Your task to perform on an android device: turn pop-ups on in chrome Image 0: 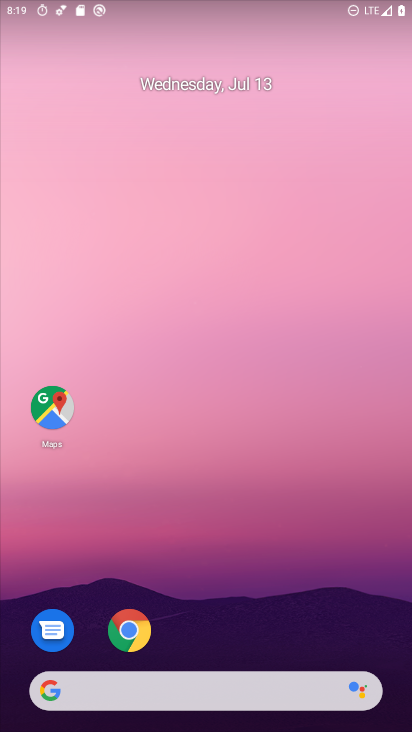
Step 0: drag from (386, 668) to (288, 68)
Your task to perform on an android device: turn pop-ups on in chrome Image 1: 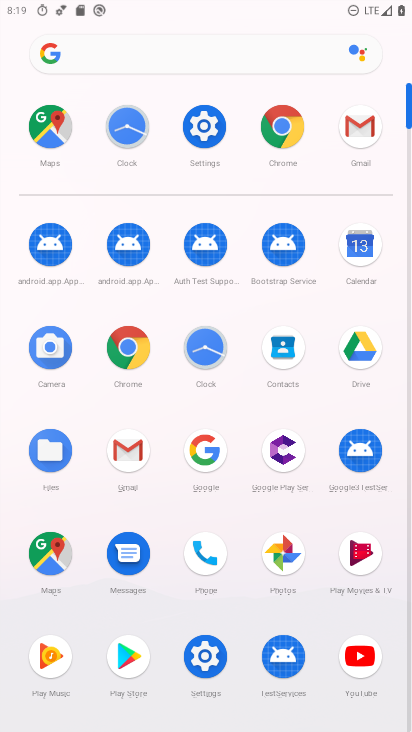
Step 1: click (276, 128)
Your task to perform on an android device: turn pop-ups on in chrome Image 2: 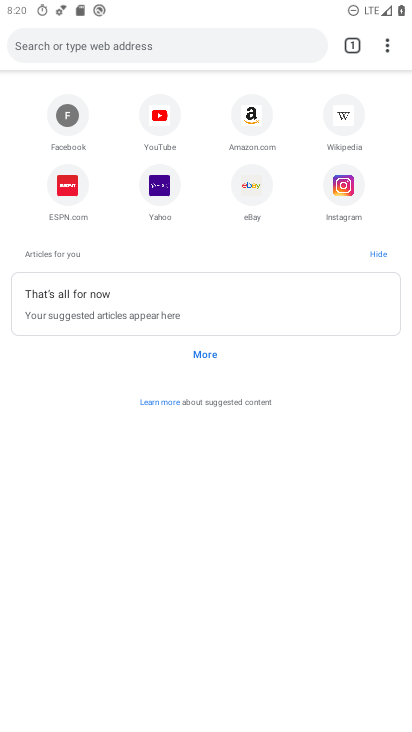
Step 2: click (385, 41)
Your task to perform on an android device: turn pop-ups on in chrome Image 3: 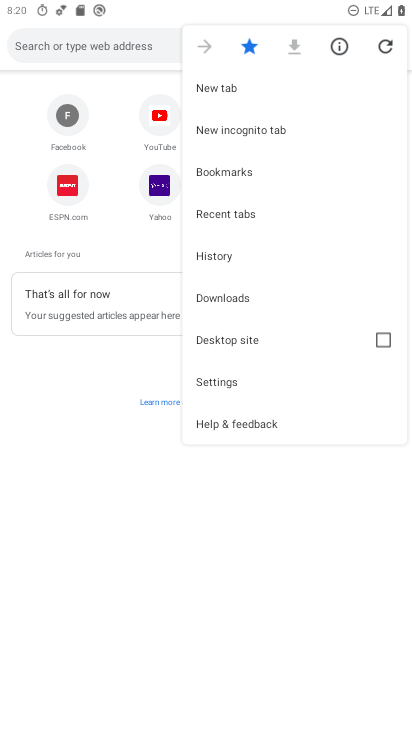
Step 3: click (223, 383)
Your task to perform on an android device: turn pop-ups on in chrome Image 4: 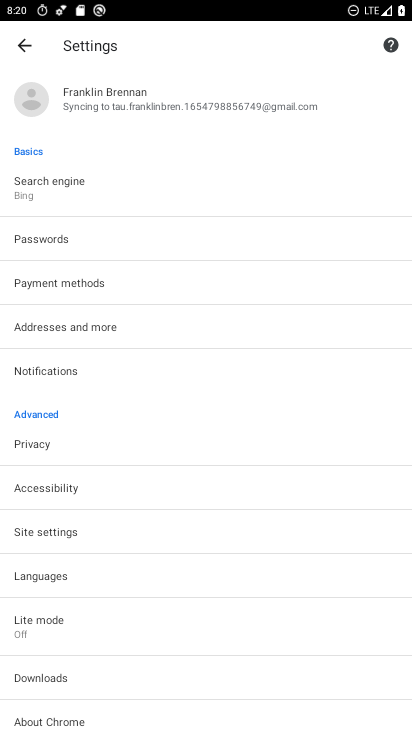
Step 4: click (66, 530)
Your task to perform on an android device: turn pop-ups on in chrome Image 5: 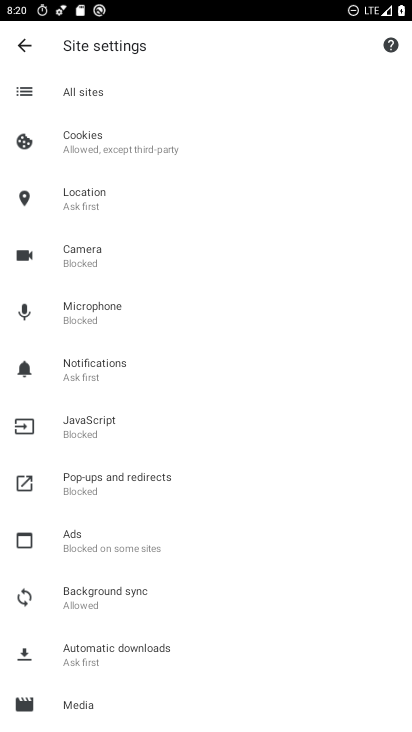
Step 5: click (124, 471)
Your task to perform on an android device: turn pop-ups on in chrome Image 6: 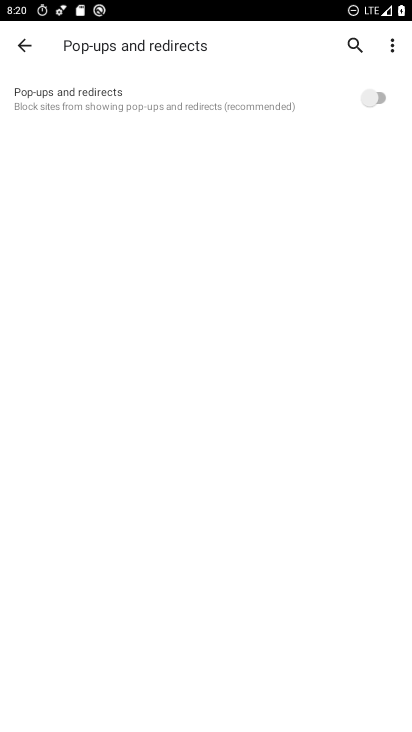
Step 6: click (380, 98)
Your task to perform on an android device: turn pop-ups on in chrome Image 7: 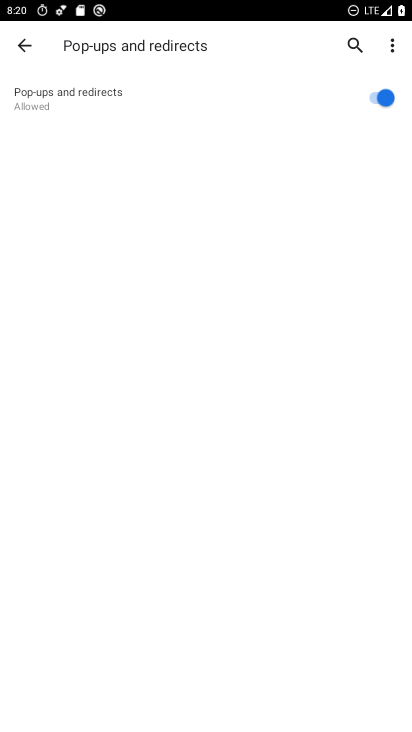
Step 7: task complete